Your task to perform on an android device: Open maps Image 0: 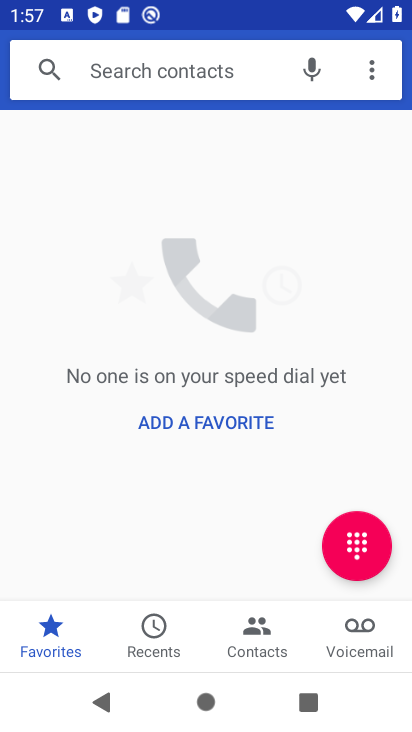
Step 0: press home button
Your task to perform on an android device: Open maps Image 1: 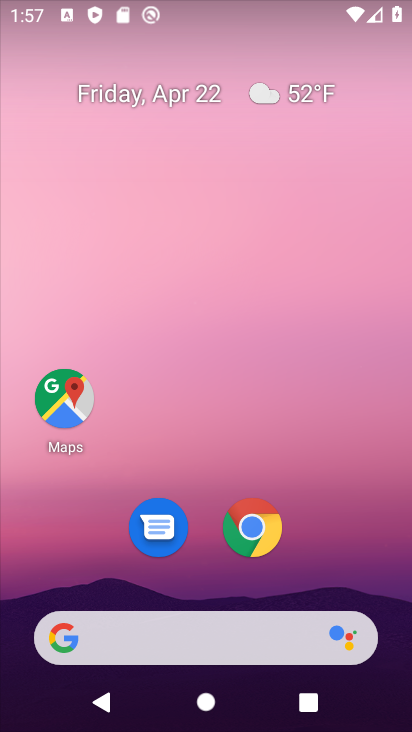
Step 1: click (65, 407)
Your task to perform on an android device: Open maps Image 2: 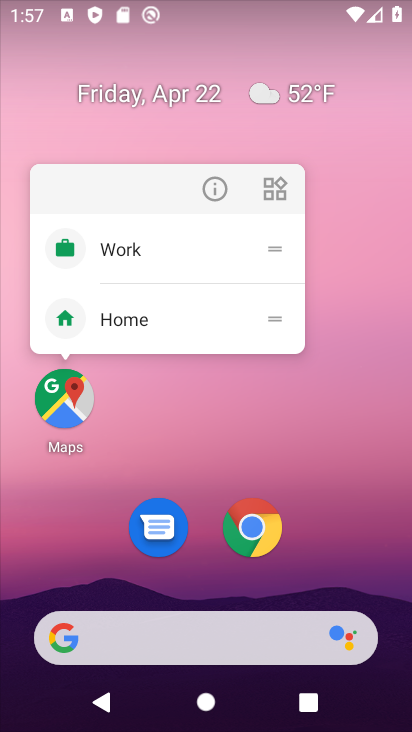
Step 2: click (65, 407)
Your task to perform on an android device: Open maps Image 3: 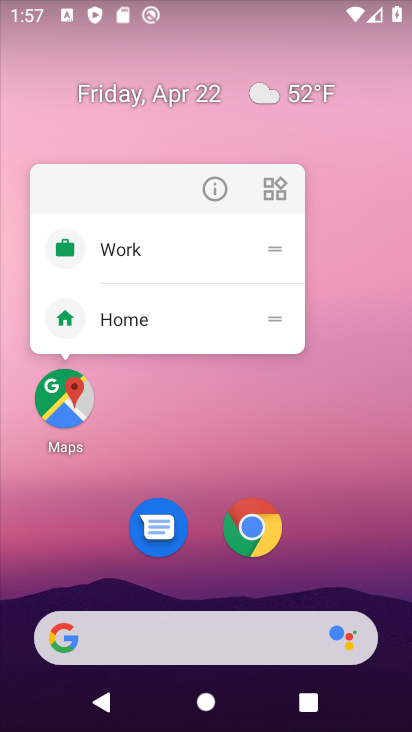
Step 3: click (65, 407)
Your task to perform on an android device: Open maps Image 4: 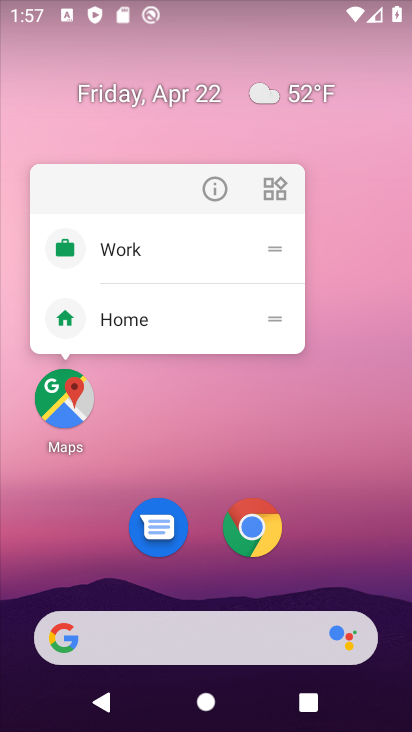
Step 4: click (65, 407)
Your task to perform on an android device: Open maps Image 5: 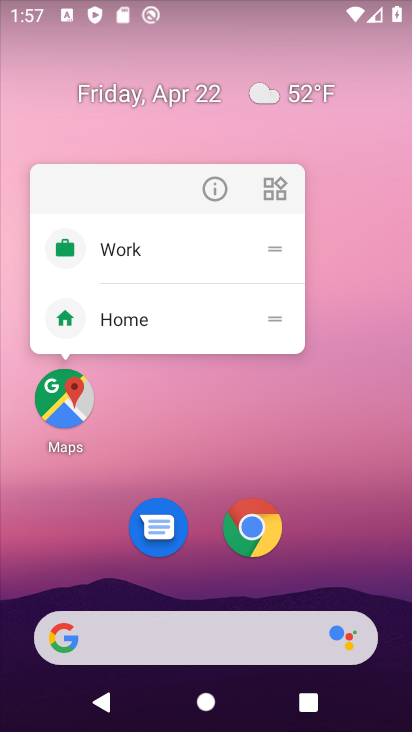
Step 5: click (65, 406)
Your task to perform on an android device: Open maps Image 6: 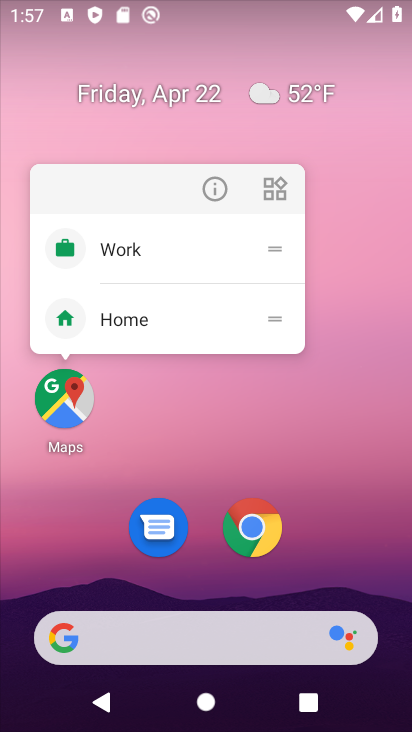
Step 6: click (65, 405)
Your task to perform on an android device: Open maps Image 7: 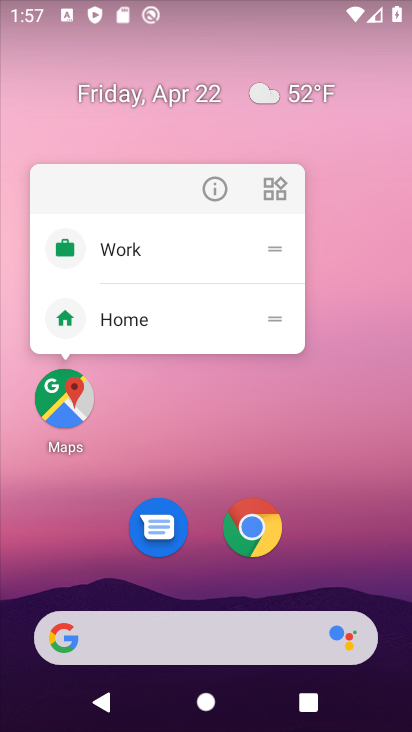
Step 7: click (65, 405)
Your task to perform on an android device: Open maps Image 8: 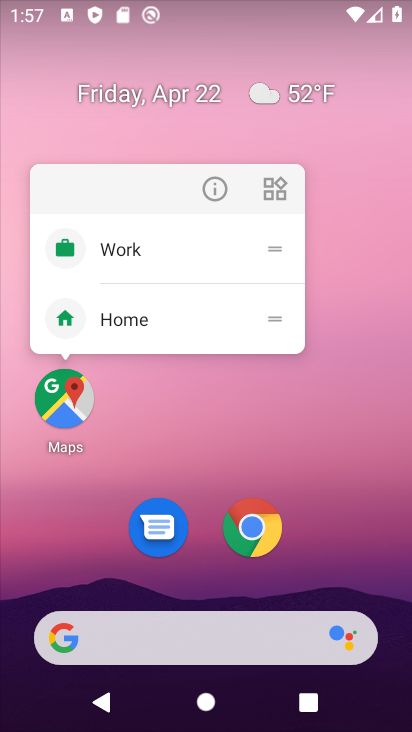
Step 8: click (65, 405)
Your task to perform on an android device: Open maps Image 9: 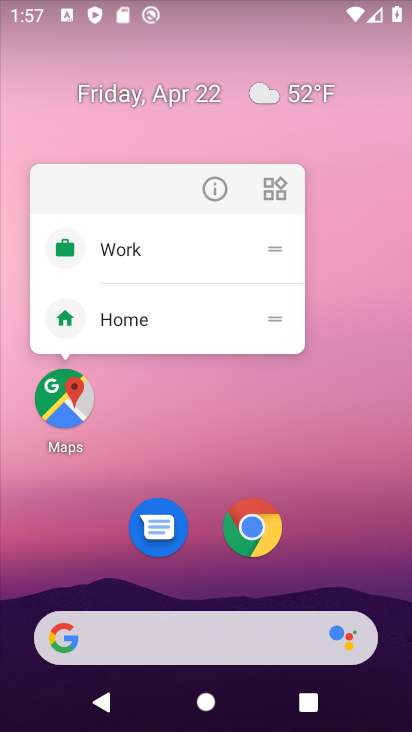
Step 9: click (65, 405)
Your task to perform on an android device: Open maps Image 10: 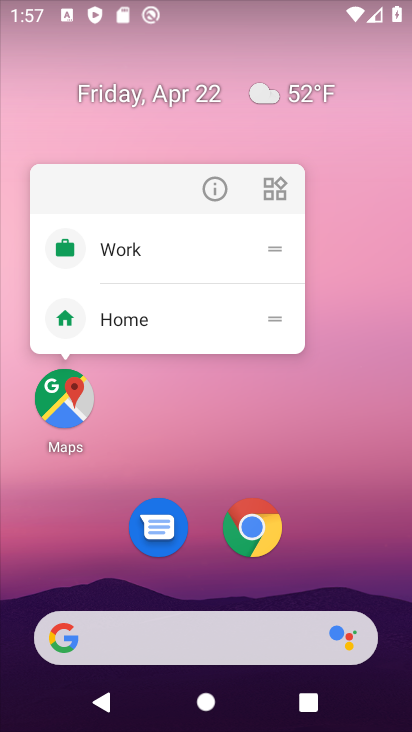
Step 10: click (65, 405)
Your task to perform on an android device: Open maps Image 11: 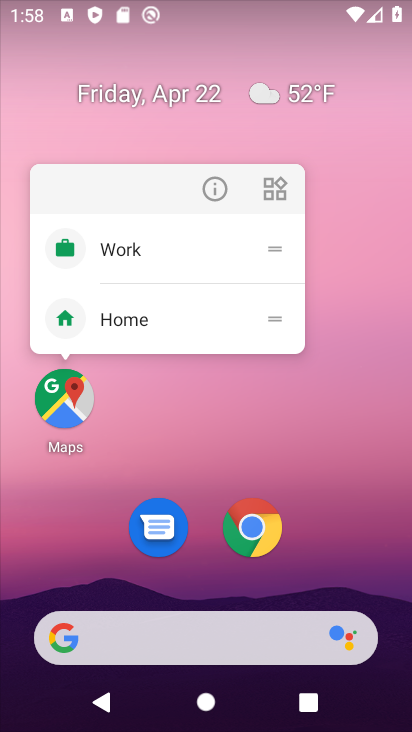
Step 11: click (65, 405)
Your task to perform on an android device: Open maps Image 12: 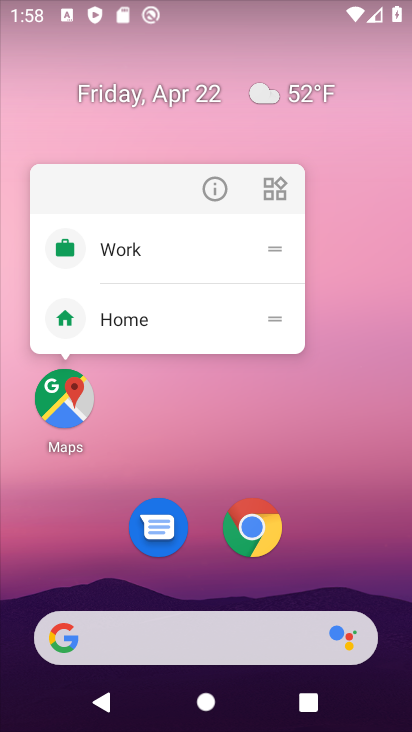
Step 12: click (65, 405)
Your task to perform on an android device: Open maps Image 13: 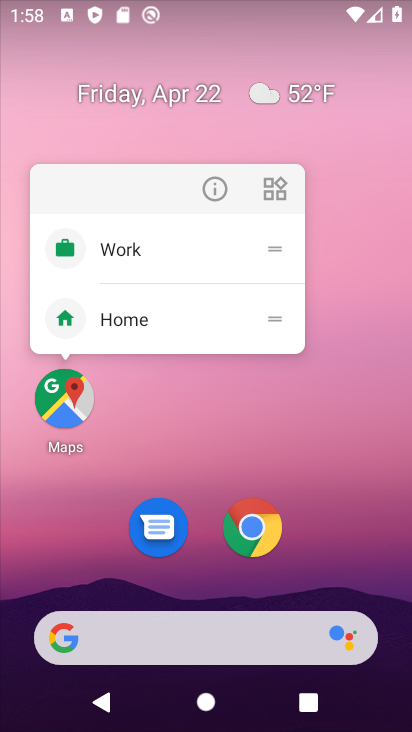
Step 13: click (65, 405)
Your task to perform on an android device: Open maps Image 14: 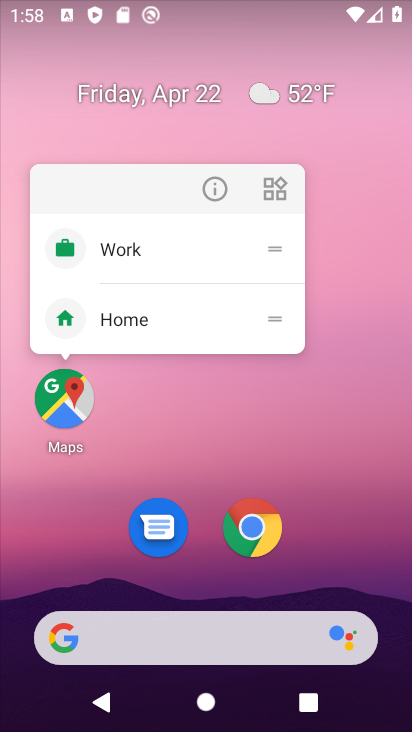
Step 14: click (65, 405)
Your task to perform on an android device: Open maps Image 15: 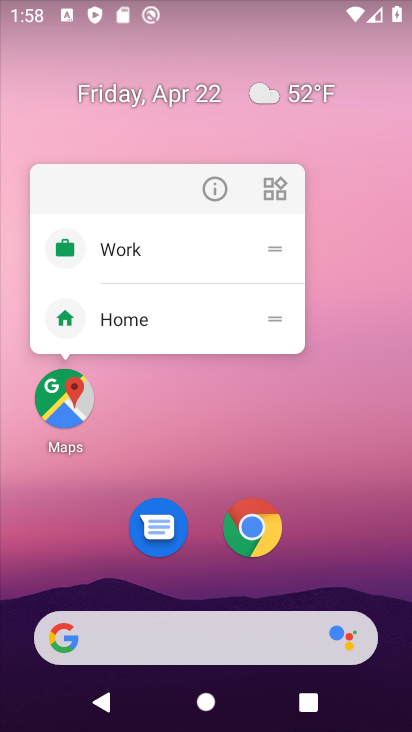
Step 15: click (65, 405)
Your task to perform on an android device: Open maps Image 16: 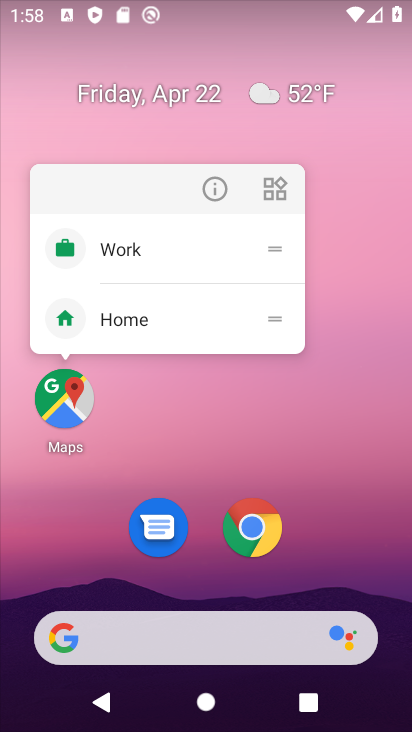
Step 16: click (65, 405)
Your task to perform on an android device: Open maps Image 17: 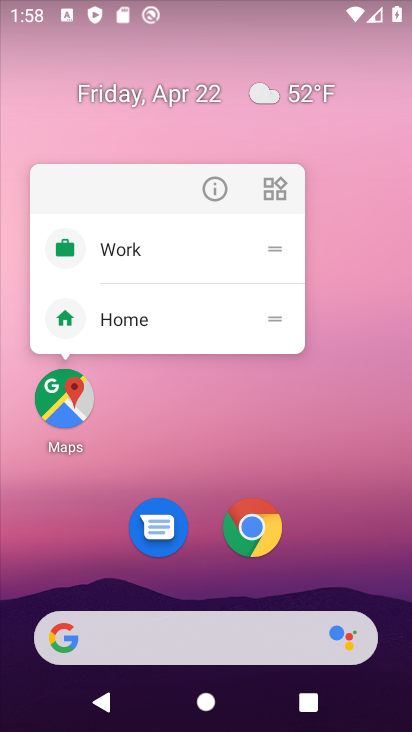
Step 17: click (64, 412)
Your task to perform on an android device: Open maps Image 18: 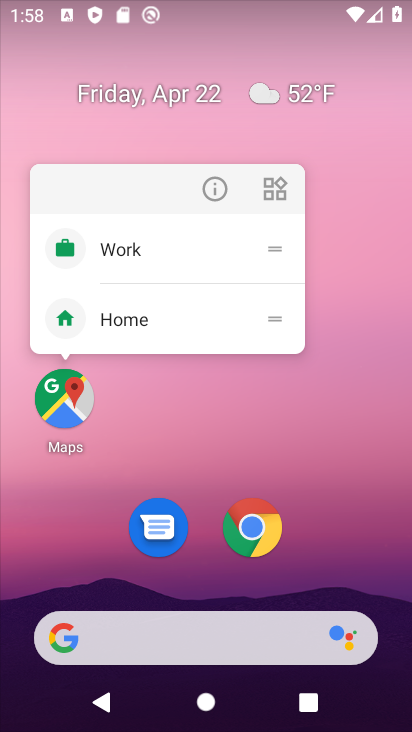
Step 18: click (64, 412)
Your task to perform on an android device: Open maps Image 19: 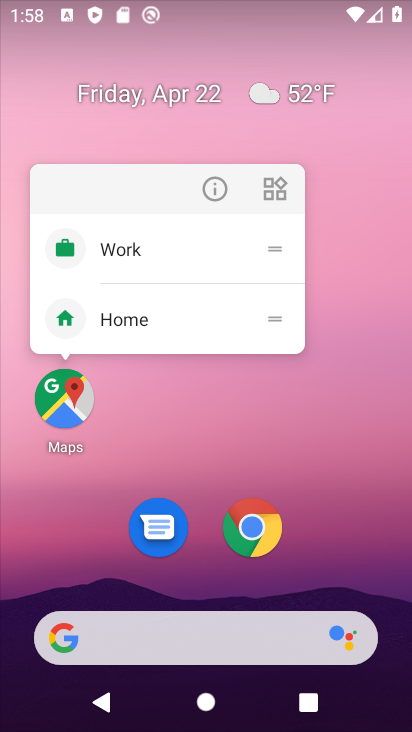
Step 19: click (64, 407)
Your task to perform on an android device: Open maps Image 20: 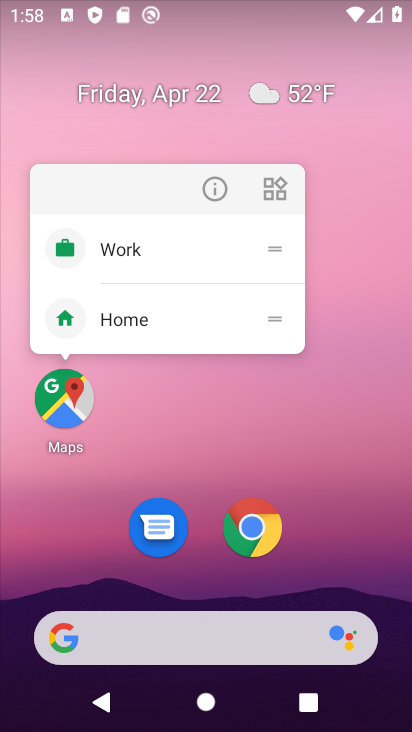
Step 20: click (64, 407)
Your task to perform on an android device: Open maps Image 21: 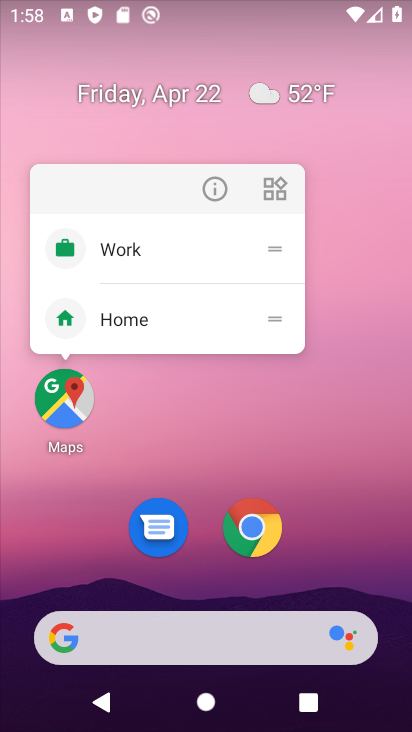
Step 21: click (64, 407)
Your task to perform on an android device: Open maps Image 22: 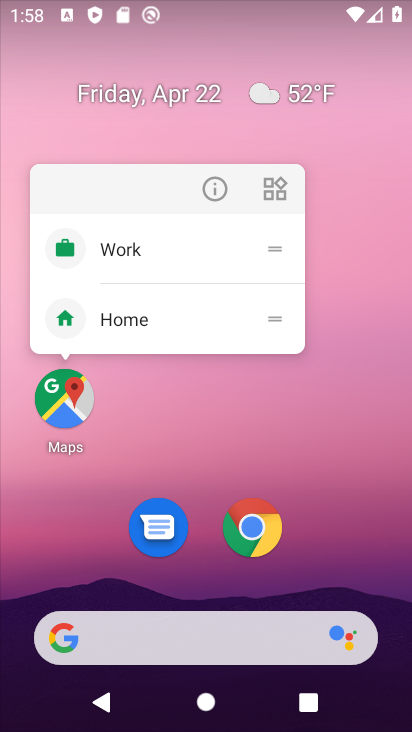
Step 22: click (64, 407)
Your task to perform on an android device: Open maps Image 23: 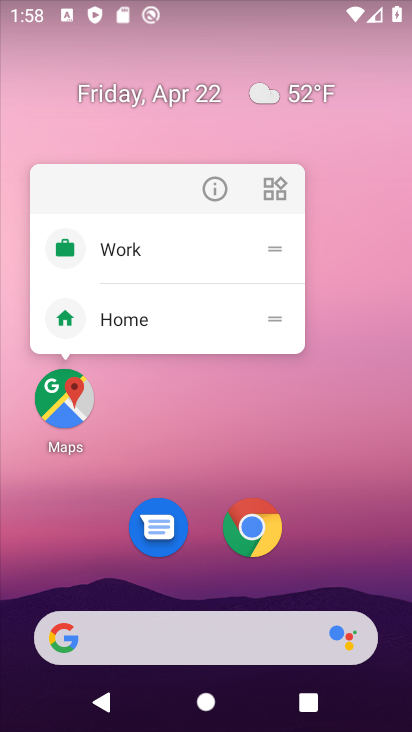
Step 23: click (64, 407)
Your task to perform on an android device: Open maps Image 24: 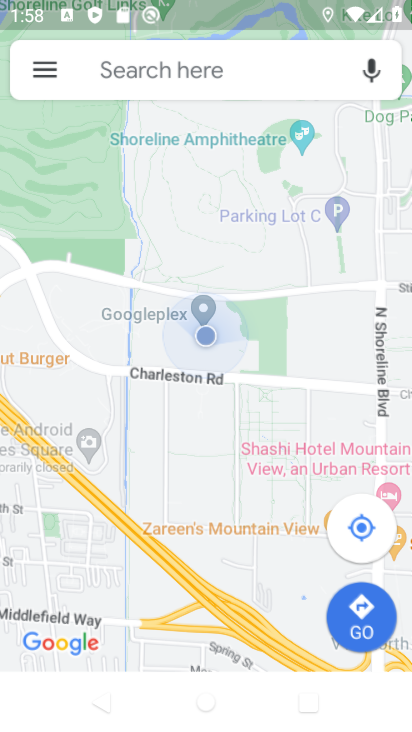
Step 24: click (64, 407)
Your task to perform on an android device: Open maps Image 25: 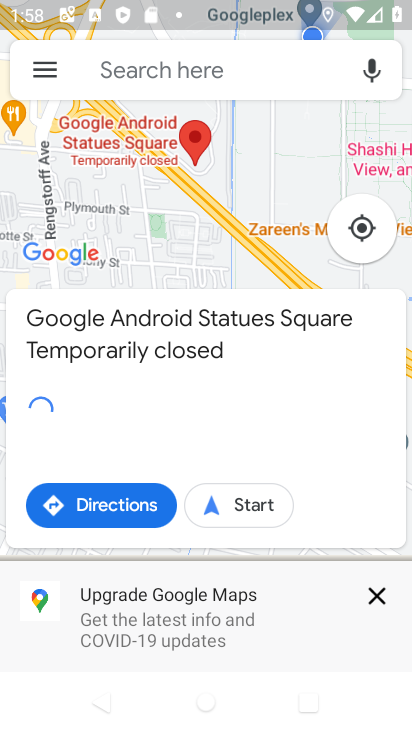
Step 25: task complete